Your task to perform on an android device: Open Chrome and go to the settings page Image 0: 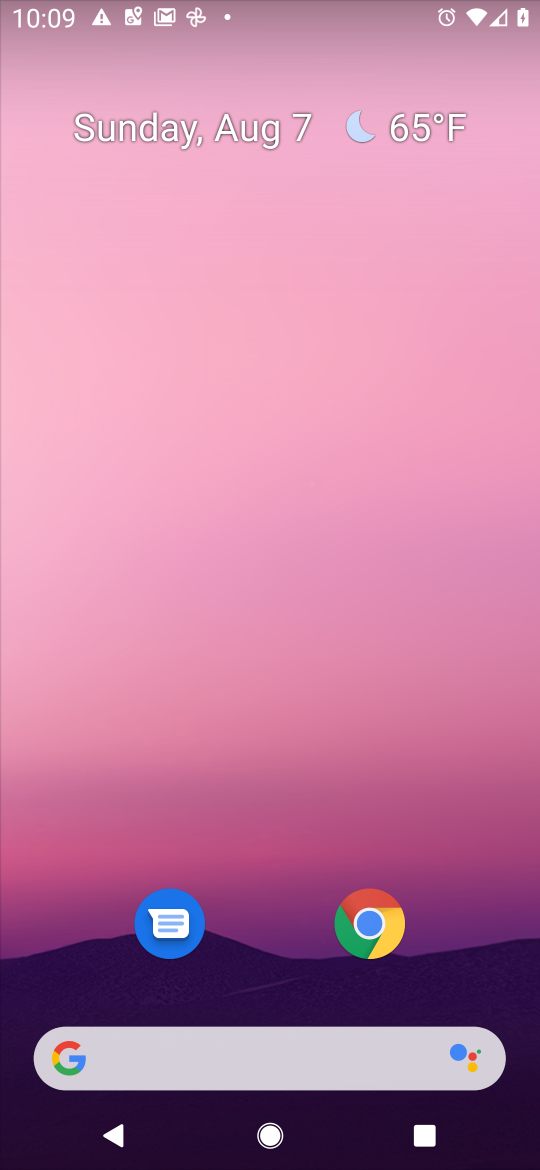
Step 0: drag from (471, 974) to (234, 42)
Your task to perform on an android device: Open Chrome and go to the settings page Image 1: 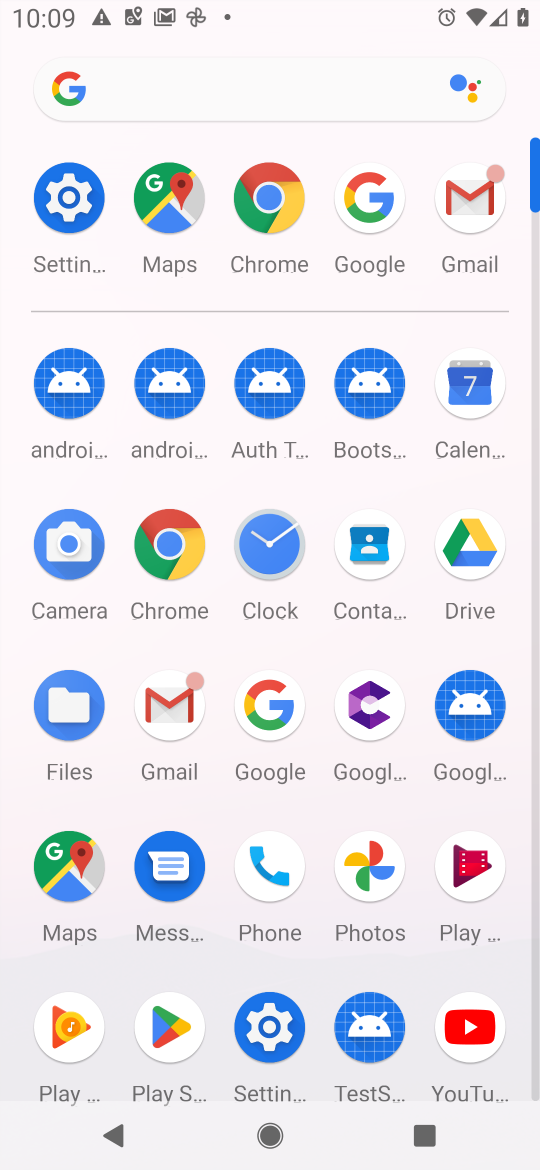
Step 1: click (187, 567)
Your task to perform on an android device: Open Chrome and go to the settings page Image 2: 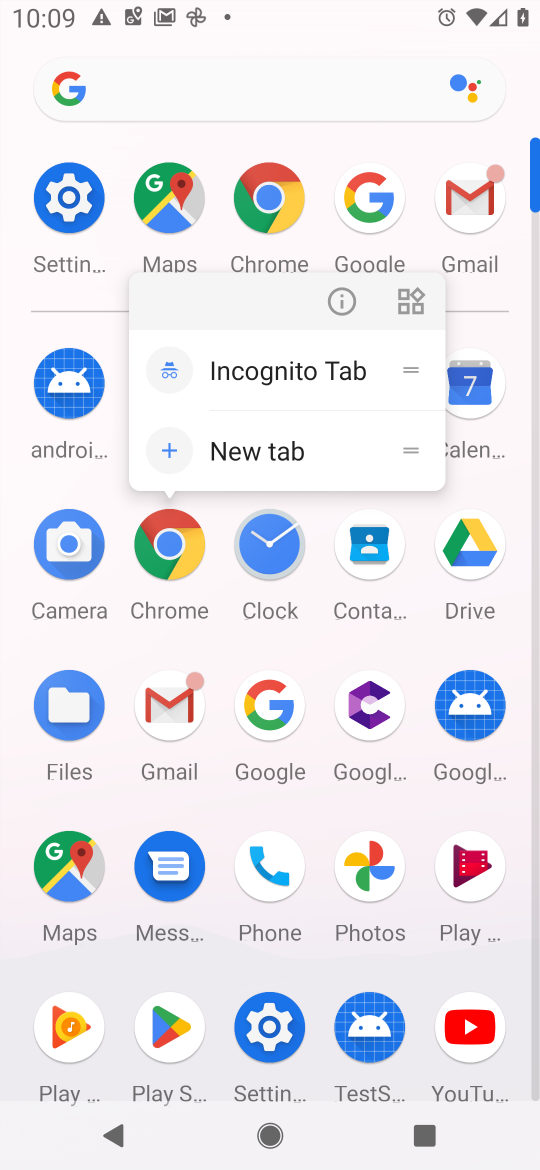
Step 2: click (157, 533)
Your task to perform on an android device: Open Chrome and go to the settings page Image 3: 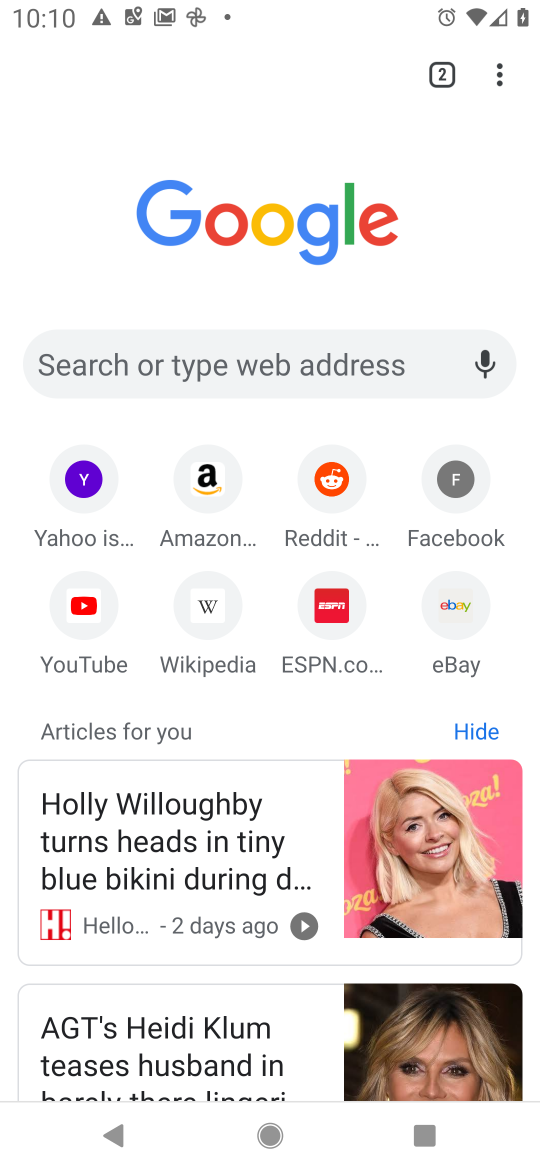
Step 3: click (509, 77)
Your task to perform on an android device: Open Chrome and go to the settings page Image 4: 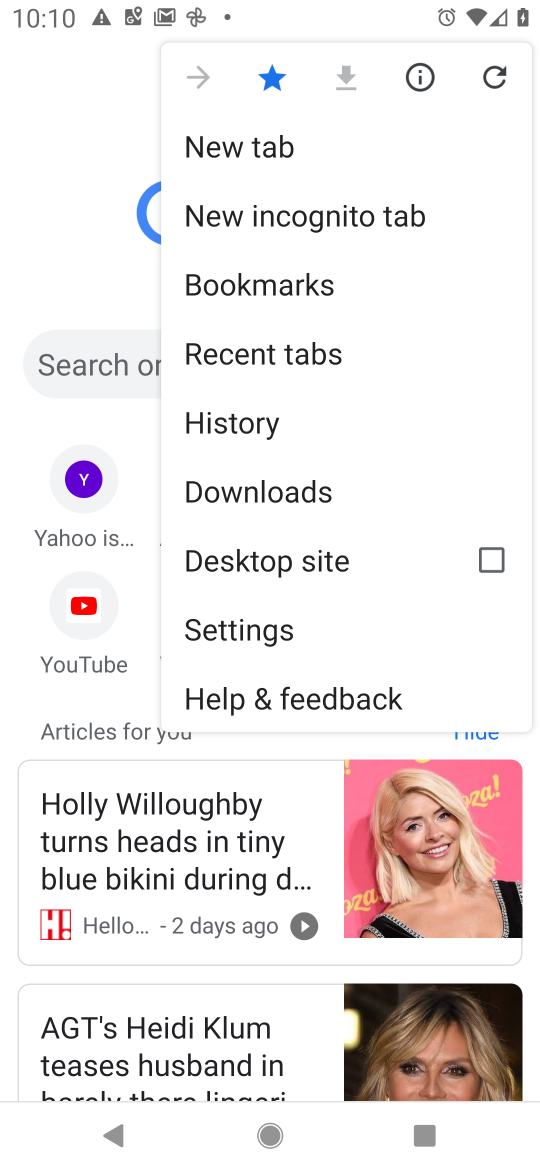
Step 4: click (267, 635)
Your task to perform on an android device: Open Chrome and go to the settings page Image 5: 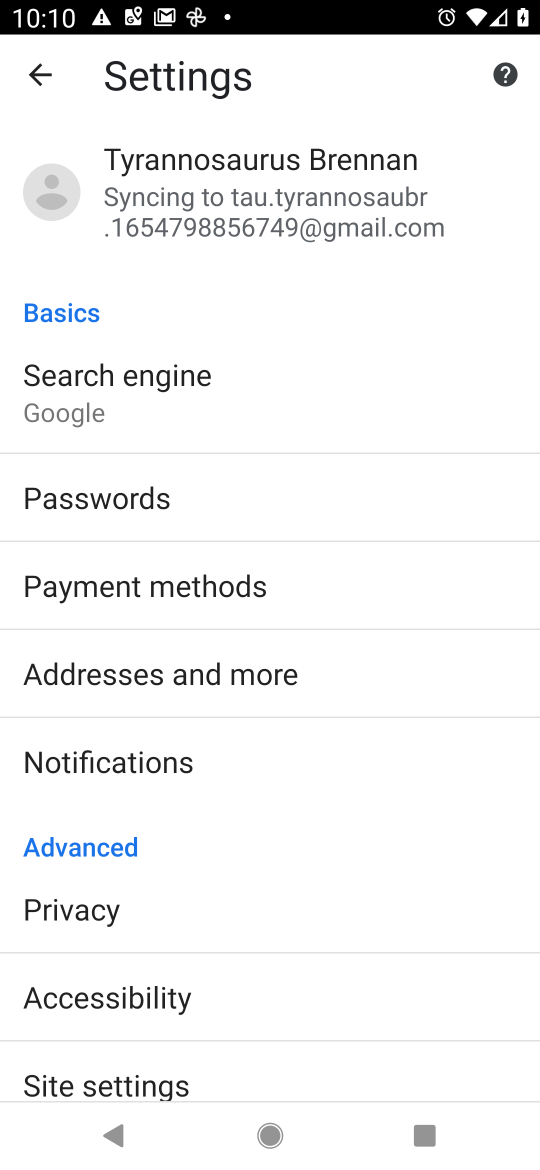
Step 5: task complete